Your task to perform on an android device: Go to location settings Image 0: 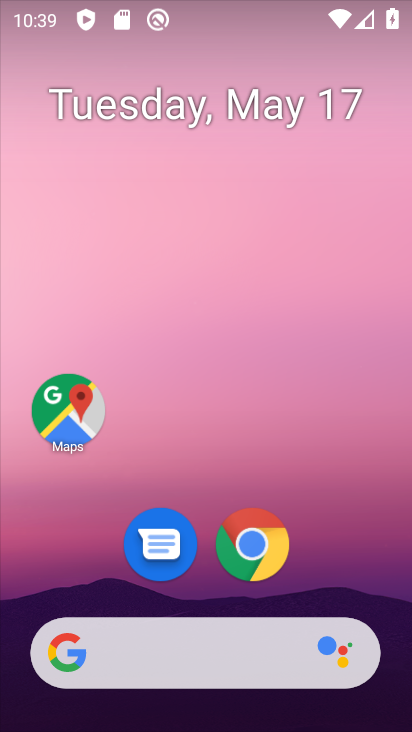
Step 0: drag from (260, 650) to (290, 49)
Your task to perform on an android device: Go to location settings Image 1: 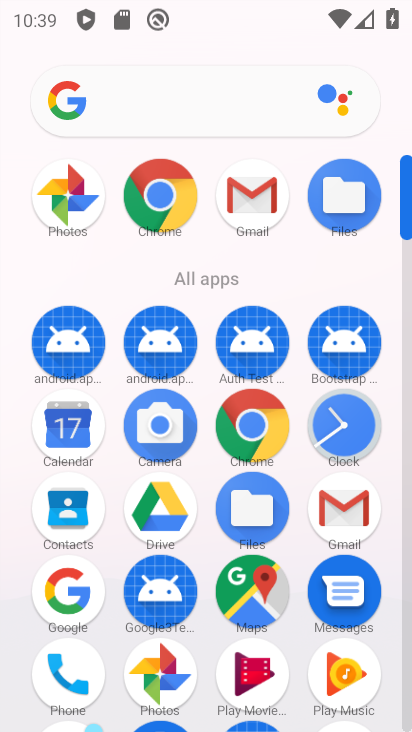
Step 1: drag from (303, 672) to (337, 174)
Your task to perform on an android device: Go to location settings Image 2: 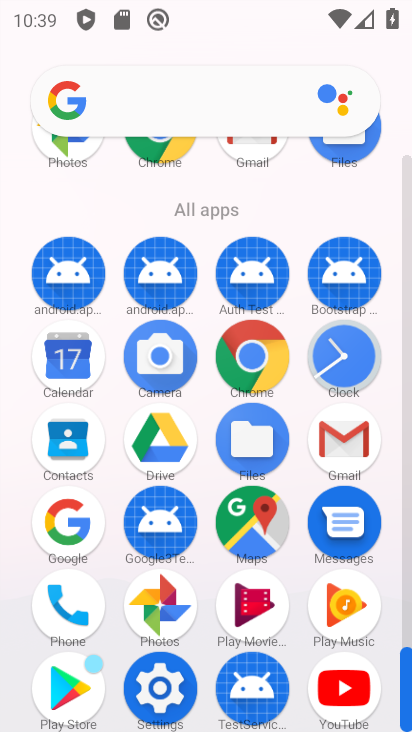
Step 2: click (155, 710)
Your task to perform on an android device: Go to location settings Image 3: 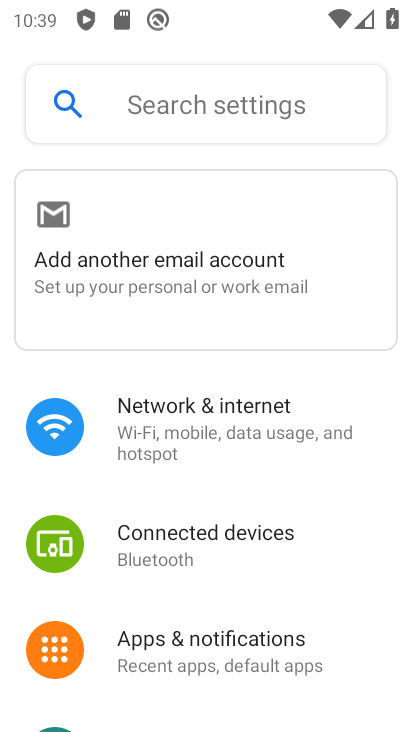
Step 3: drag from (264, 667) to (297, 183)
Your task to perform on an android device: Go to location settings Image 4: 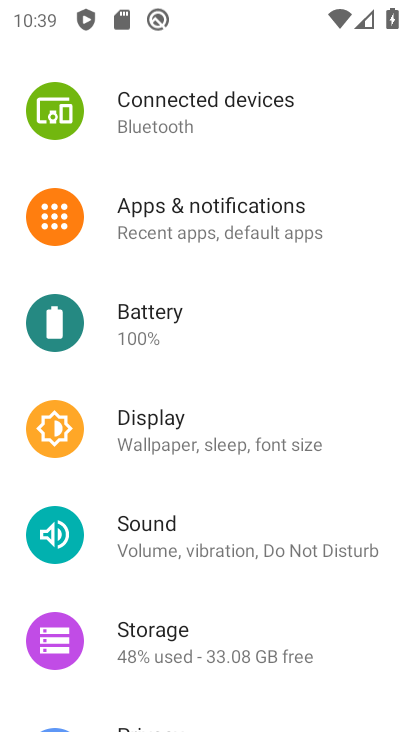
Step 4: drag from (253, 624) to (319, 76)
Your task to perform on an android device: Go to location settings Image 5: 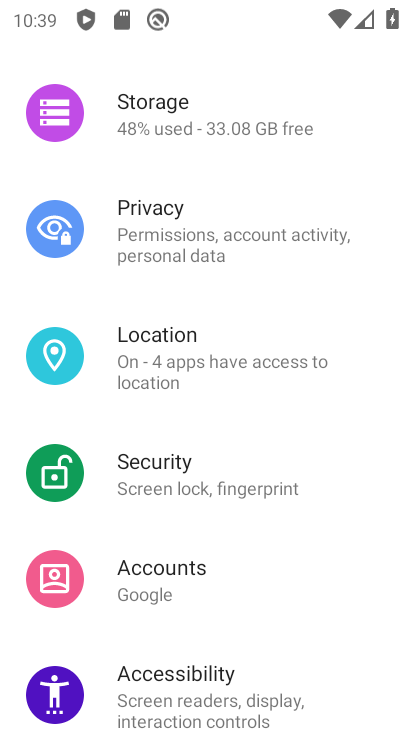
Step 5: click (221, 342)
Your task to perform on an android device: Go to location settings Image 6: 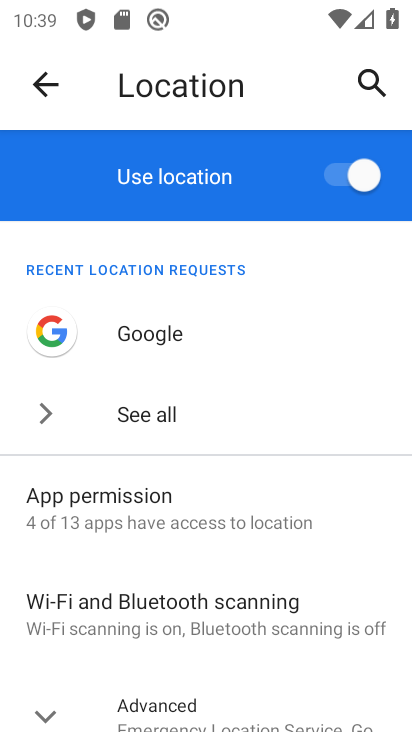
Step 6: task complete